Your task to perform on an android device: toggle airplane mode Image 0: 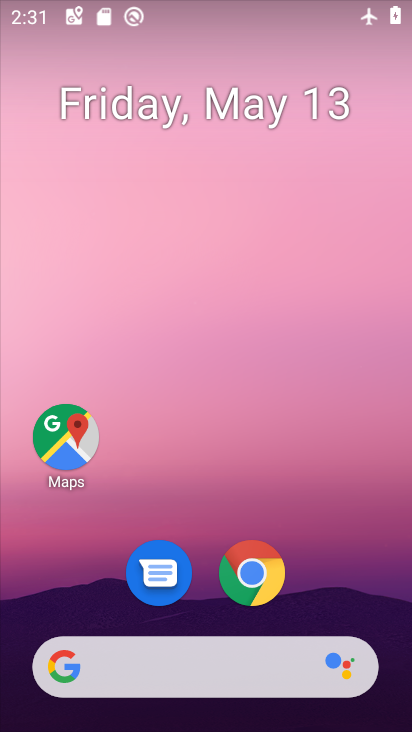
Step 0: drag from (410, 605) to (401, 58)
Your task to perform on an android device: toggle airplane mode Image 1: 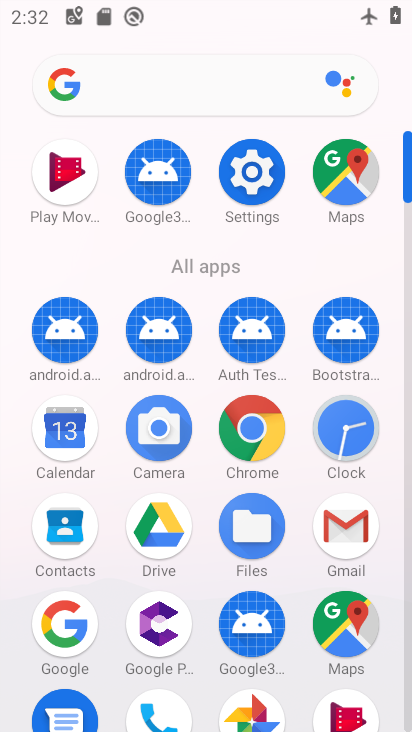
Step 1: click (233, 227)
Your task to perform on an android device: toggle airplane mode Image 2: 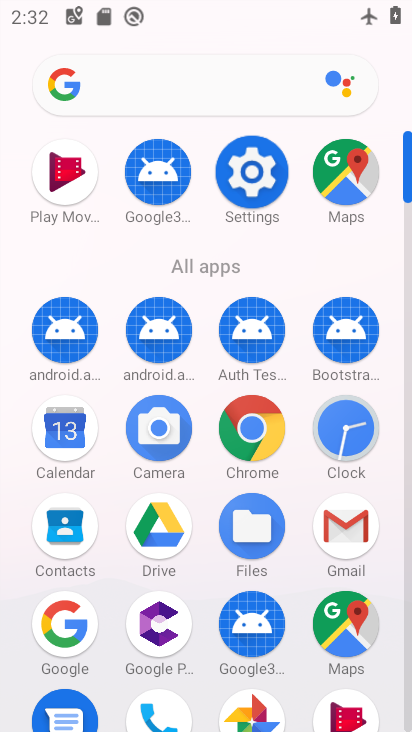
Step 2: click (233, 227)
Your task to perform on an android device: toggle airplane mode Image 3: 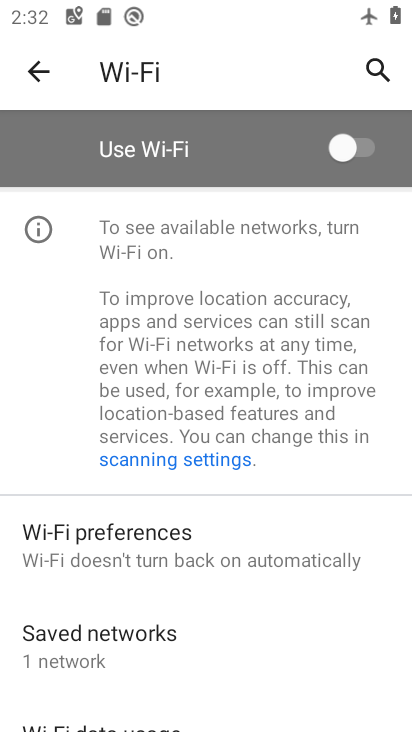
Step 3: click (33, 65)
Your task to perform on an android device: toggle airplane mode Image 4: 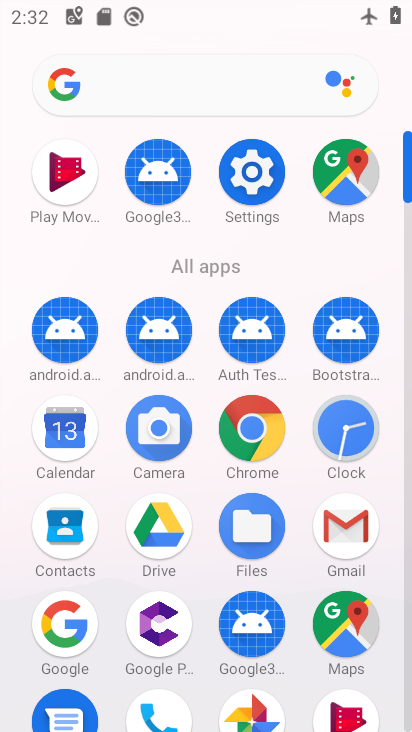
Step 4: click (260, 185)
Your task to perform on an android device: toggle airplane mode Image 5: 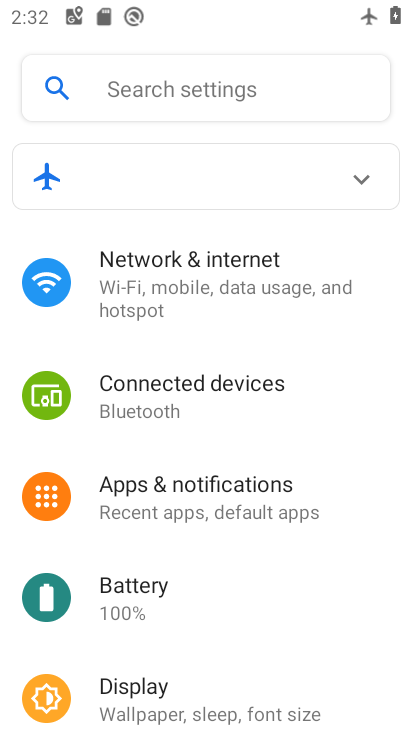
Step 5: click (197, 276)
Your task to perform on an android device: toggle airplane mode Image 6: 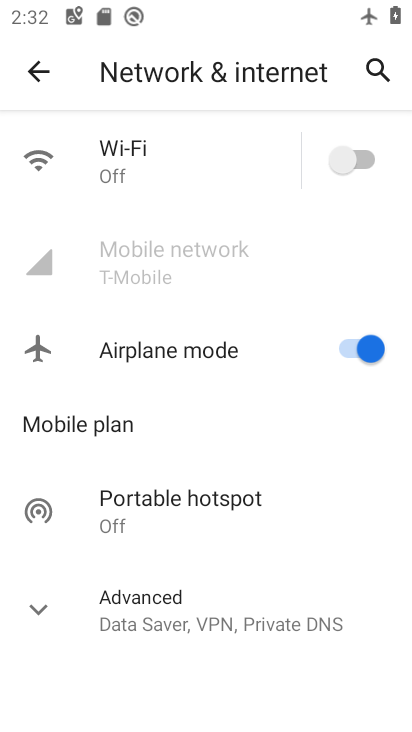
Step 6: click (373, 349)
Your task to perform on an android device: toggle airplane mode Image 7: 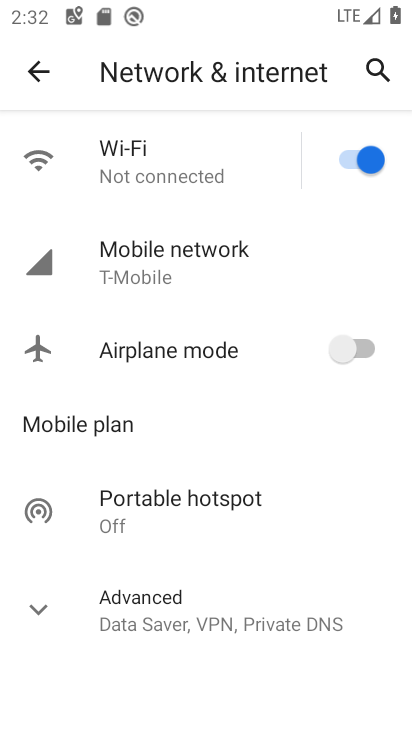
Step 7: task complete